Your task to perform on an android device: set an alarm Image 0: 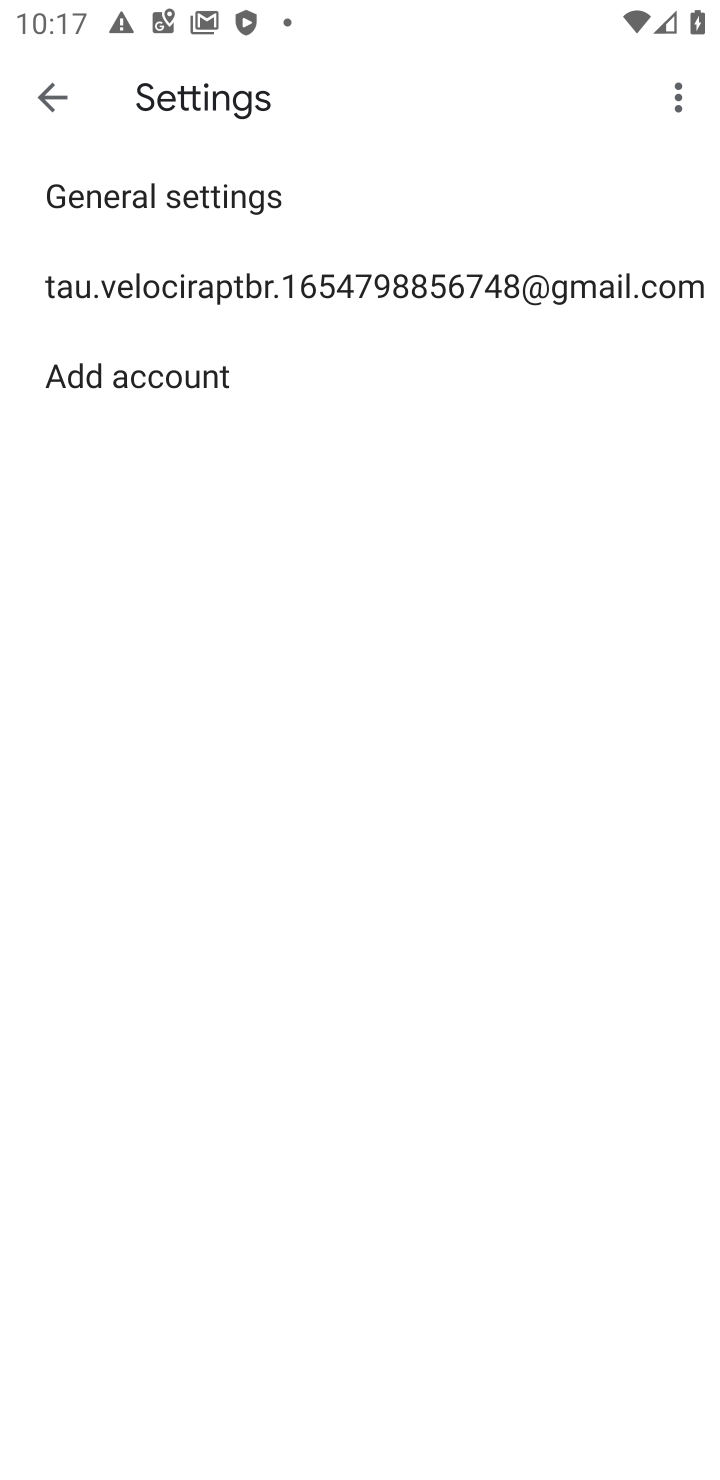
Step 0: press home button
Your task to perform on an android device: set an alarm Image 1: 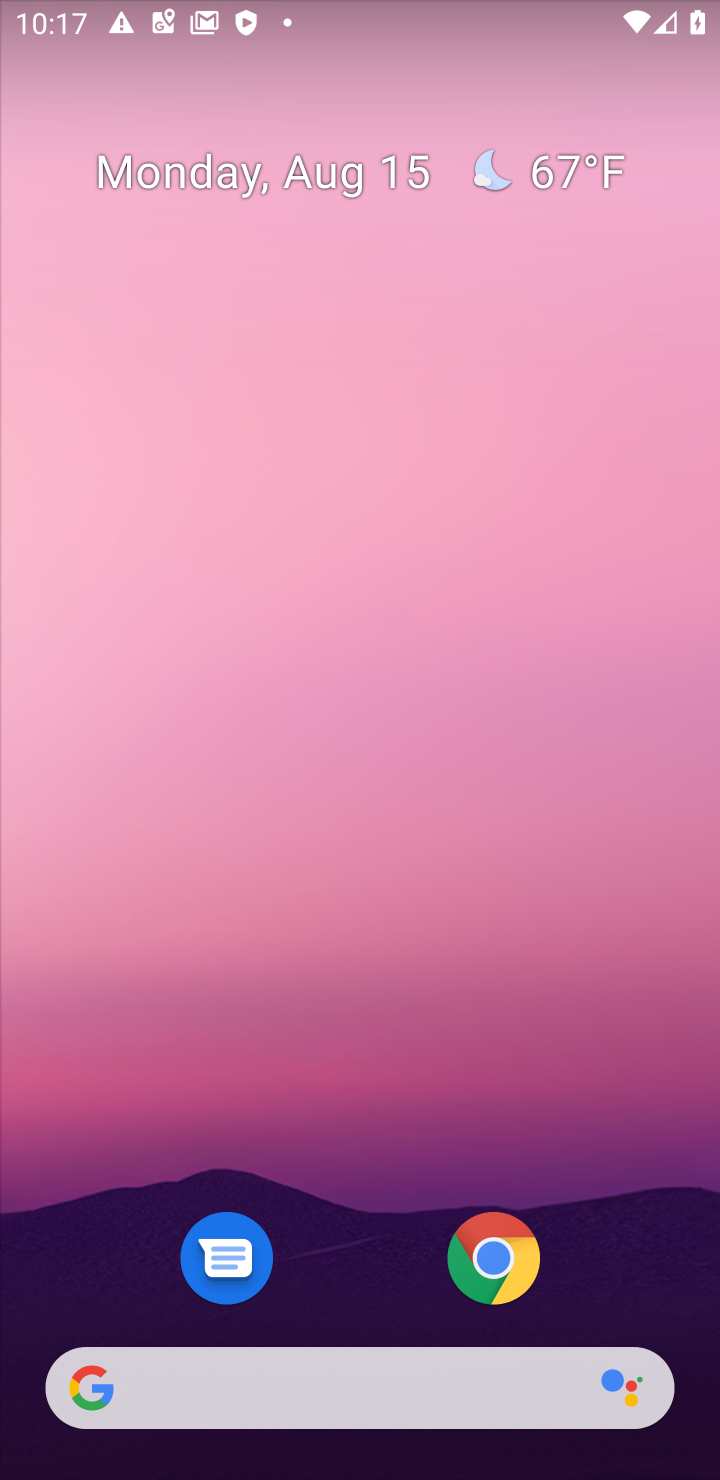
Step 1: drag from (394, 716) to (293, 4)
Your task to perform on an android device: set an alarm Image 2: 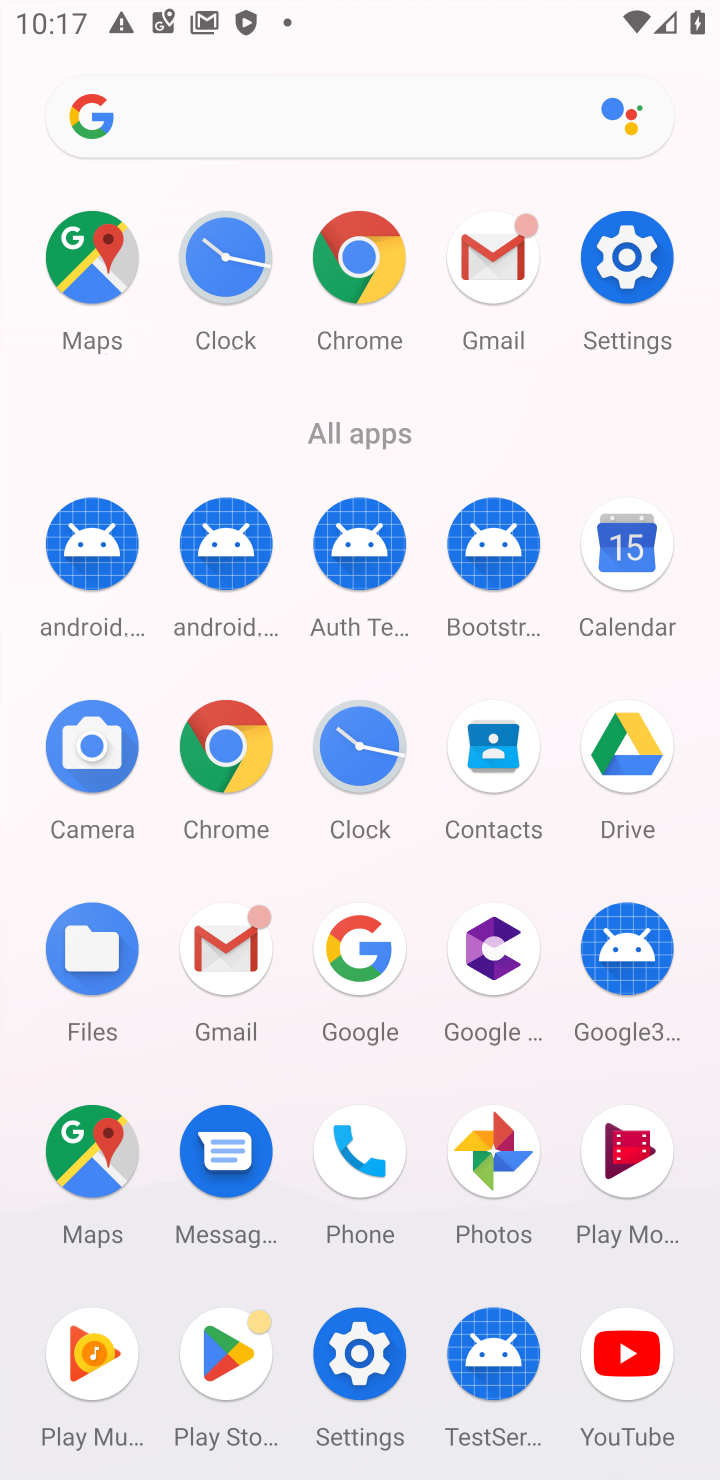
Step 2: click (370, 746)
Your task to perform on an android device: set an alarm Image 3: 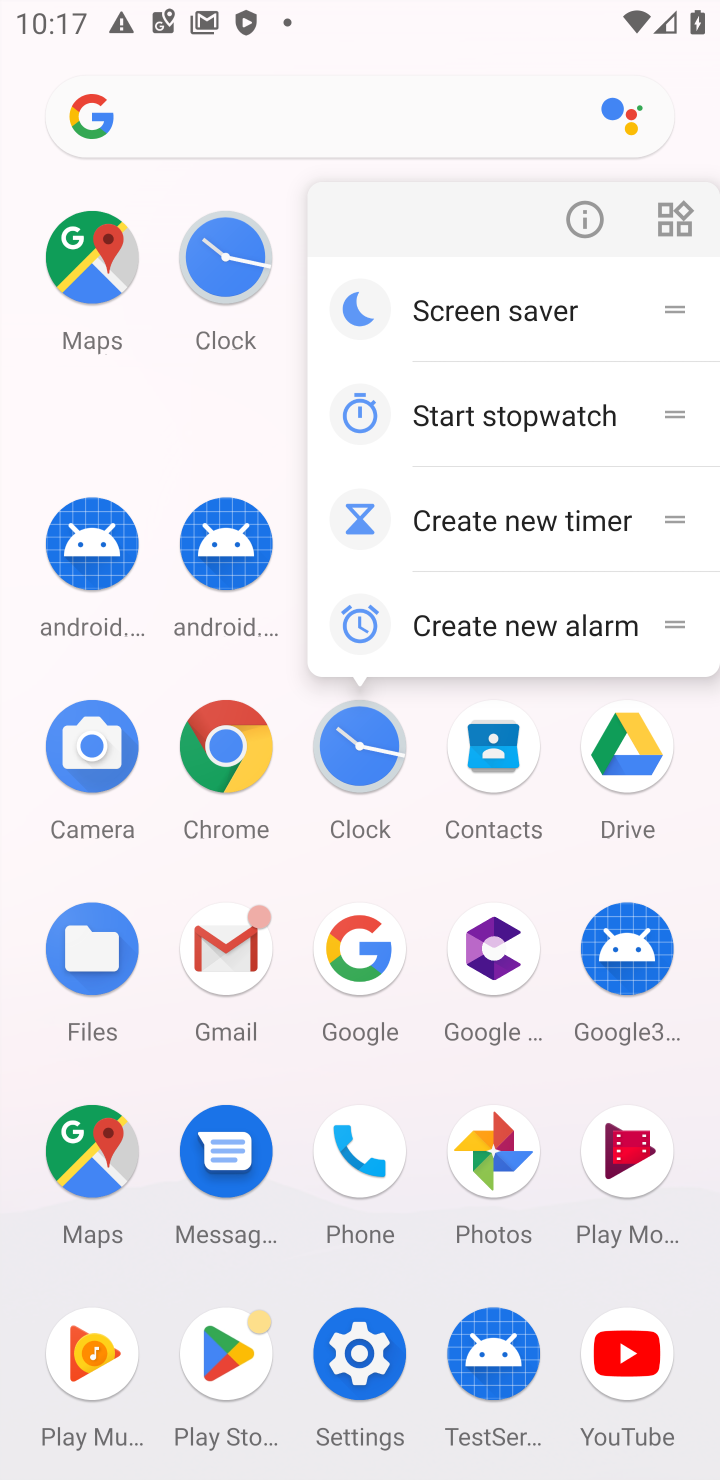
Step 3: click (360, 784)
Your task to perform on an android device: set an alarm Image 4: 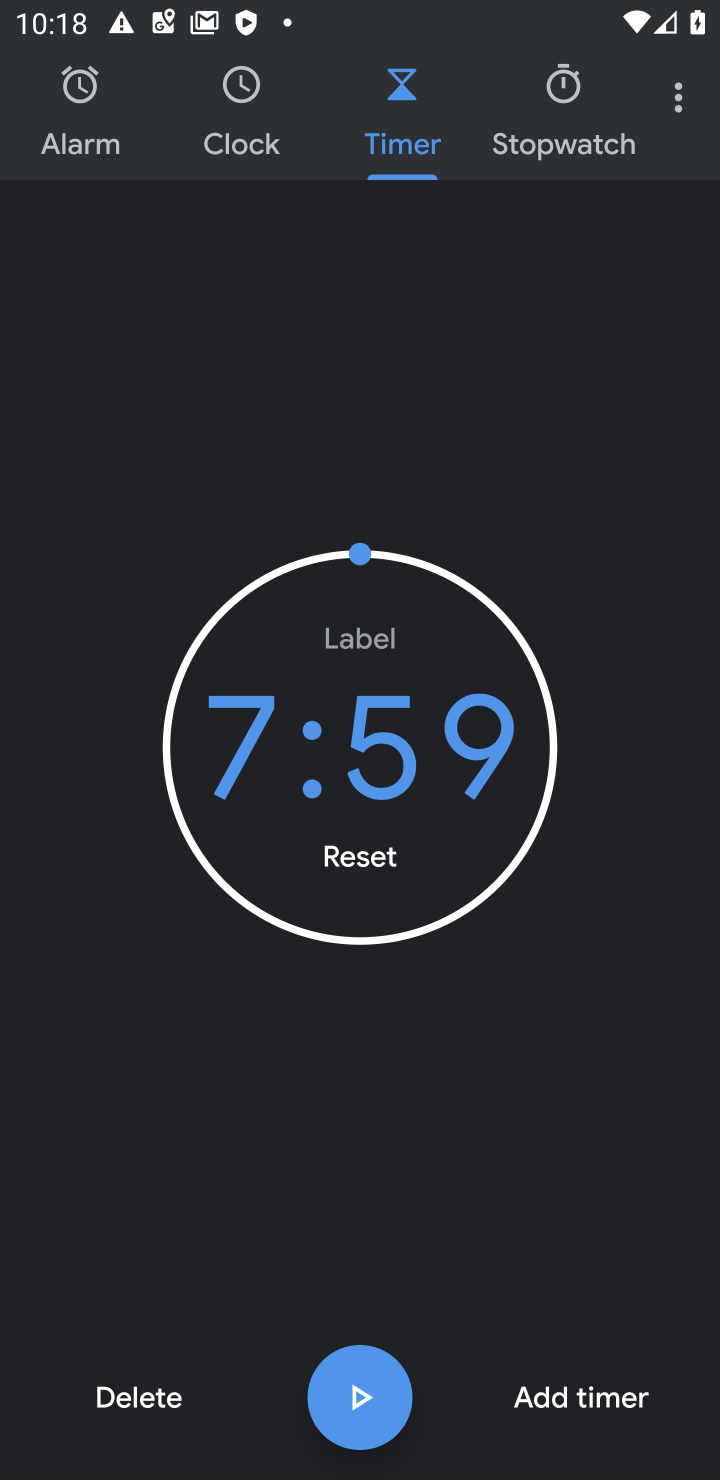
Step 4: click (147, 1389)
Your task to perform on an android device: set an alarm Image 5: 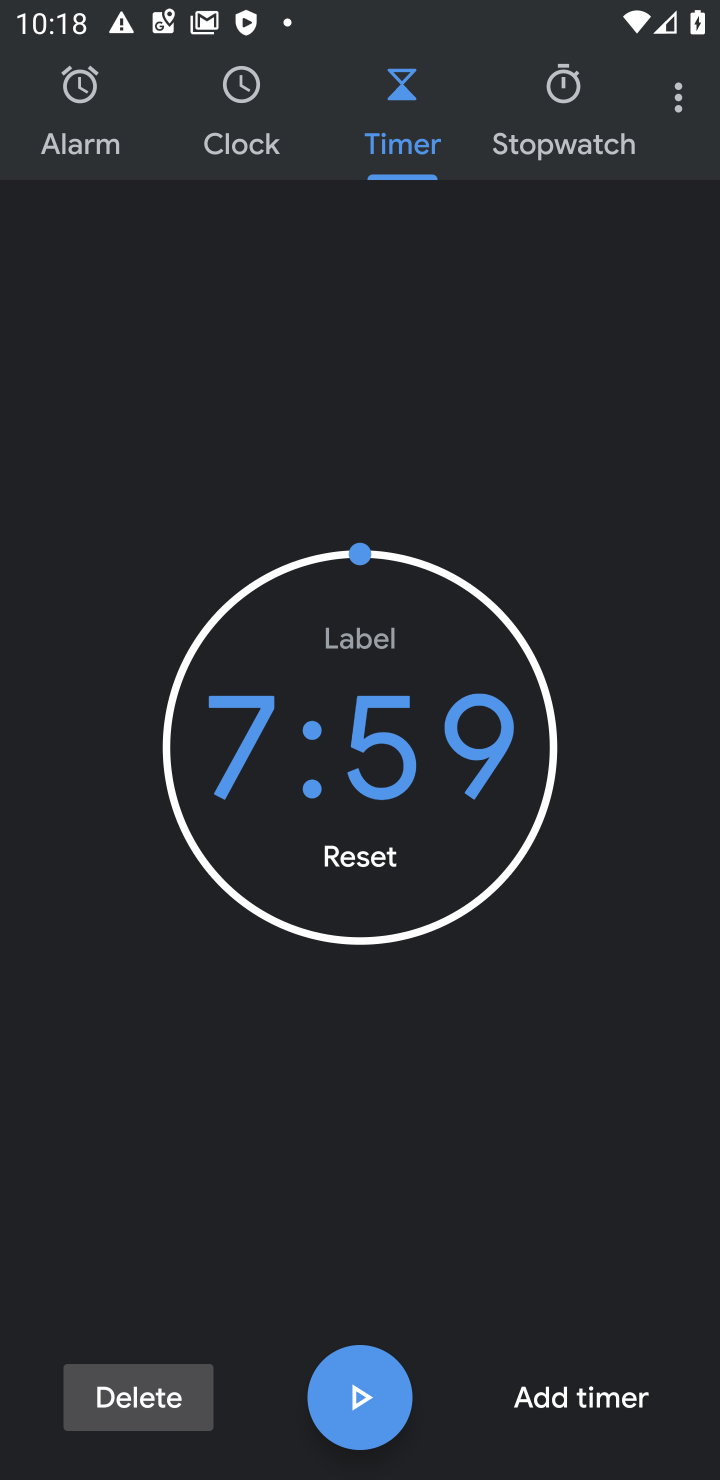
Step 5: click (100, 91)
Your task to perform on an android device: set an alarm Image 6: 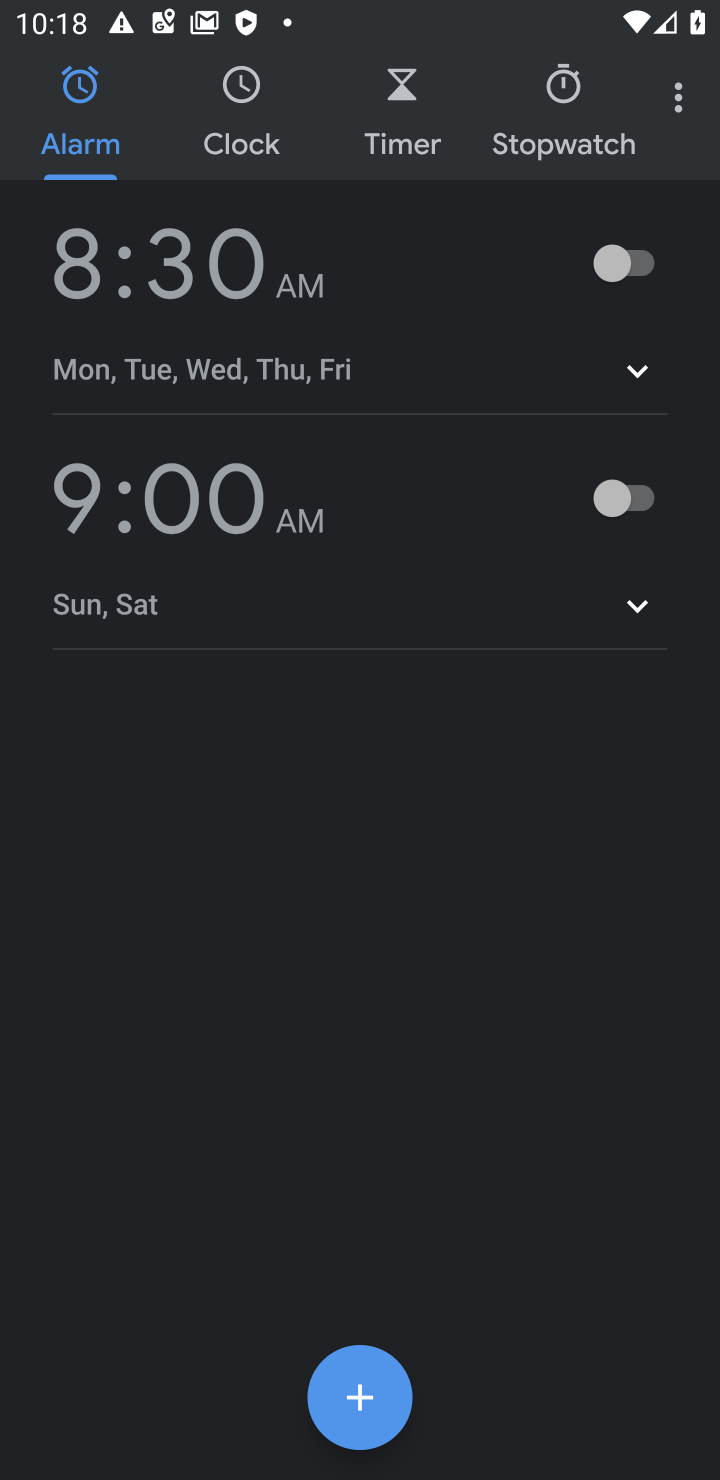
Step 6: click (232, 288)
Your task to perform on an android device: set an alarm Image 7: 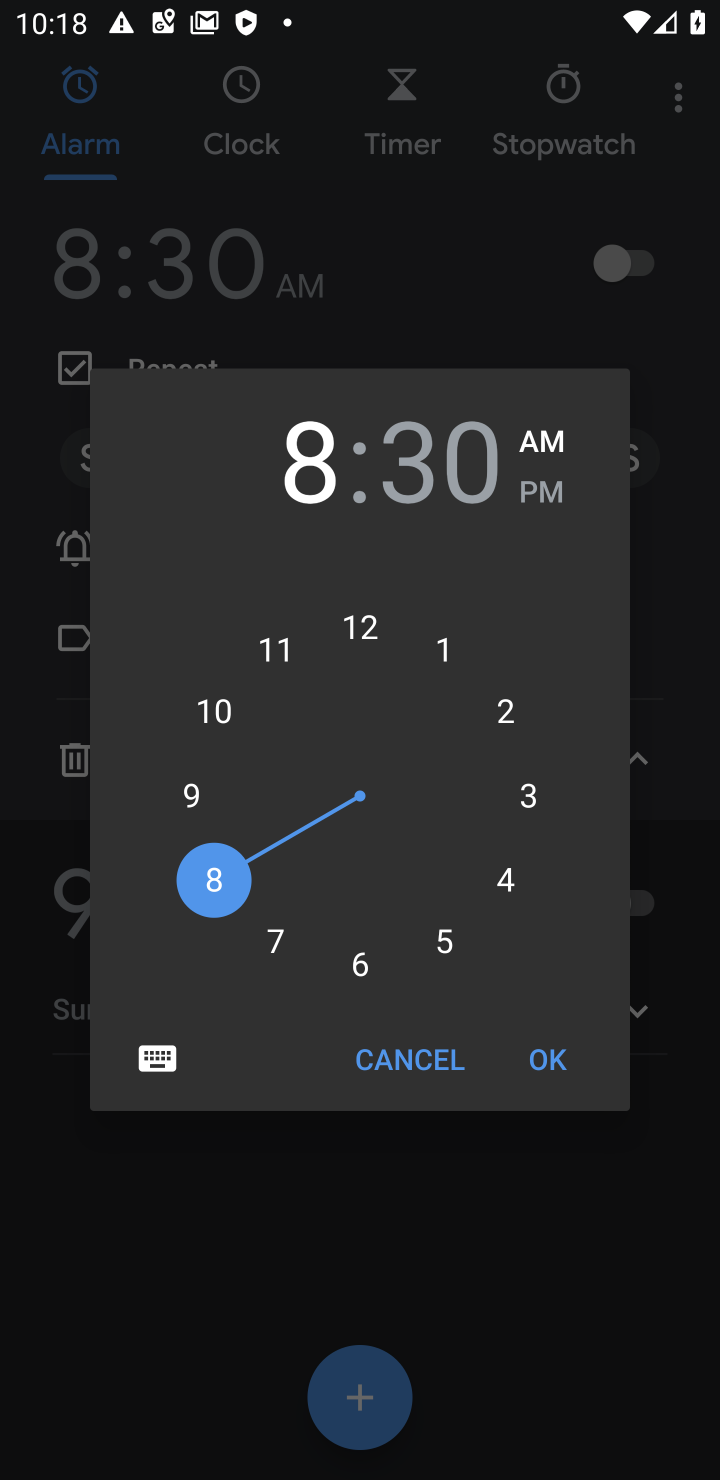
Step 7: click (365, 978)
Your task to perform on an android device: set an alarm Image 8: 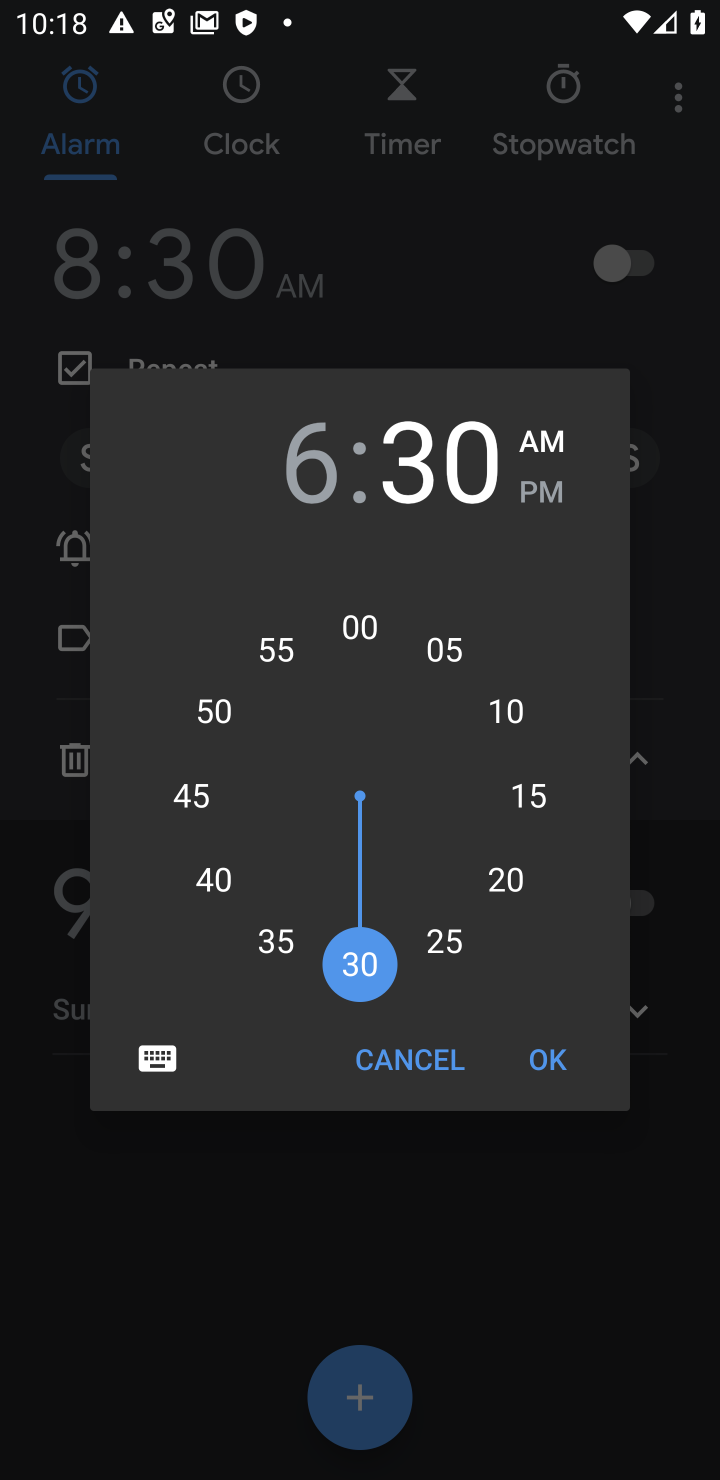
Step 8: click (523, 713)
Your task to perform on an android device: set an alarm Image 9: 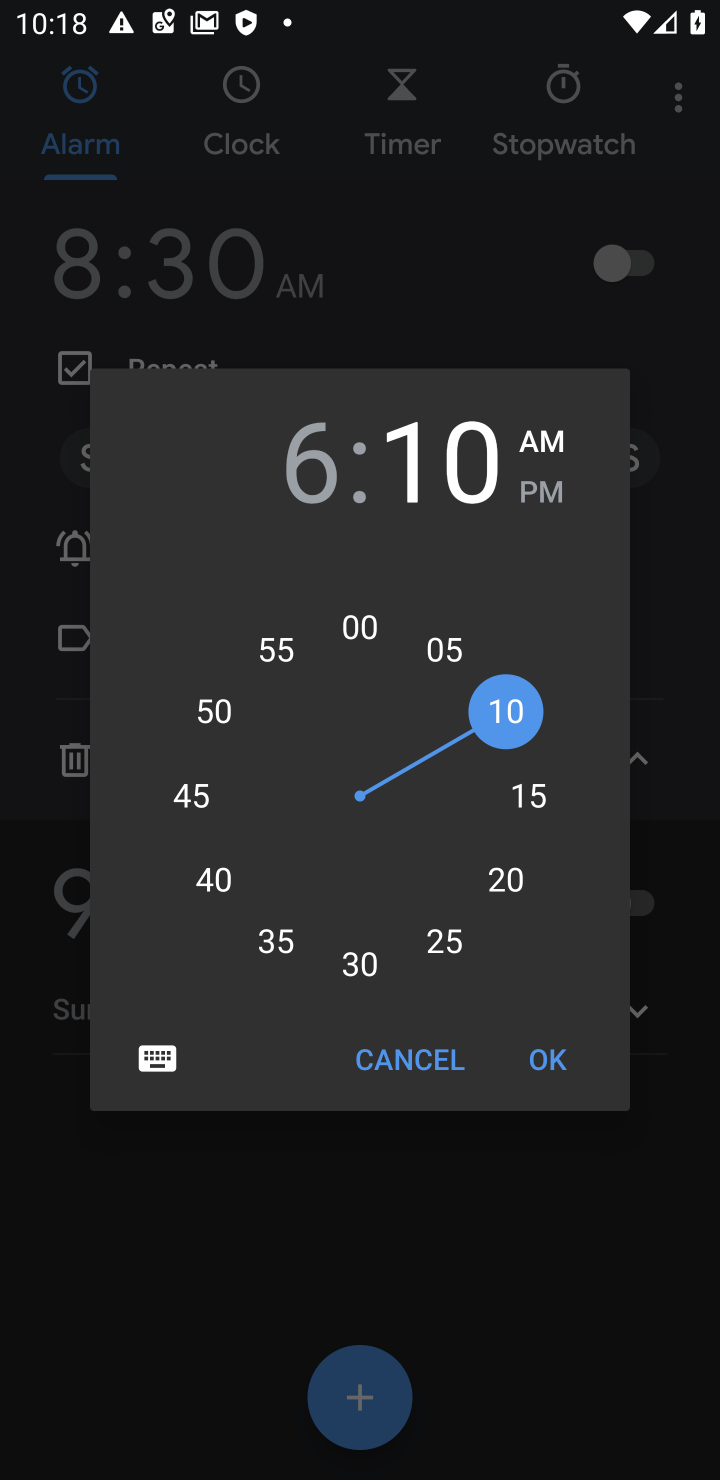
Step 9: click (559, 1062)
Your task to perform on an android device: set an alarm Image 10: 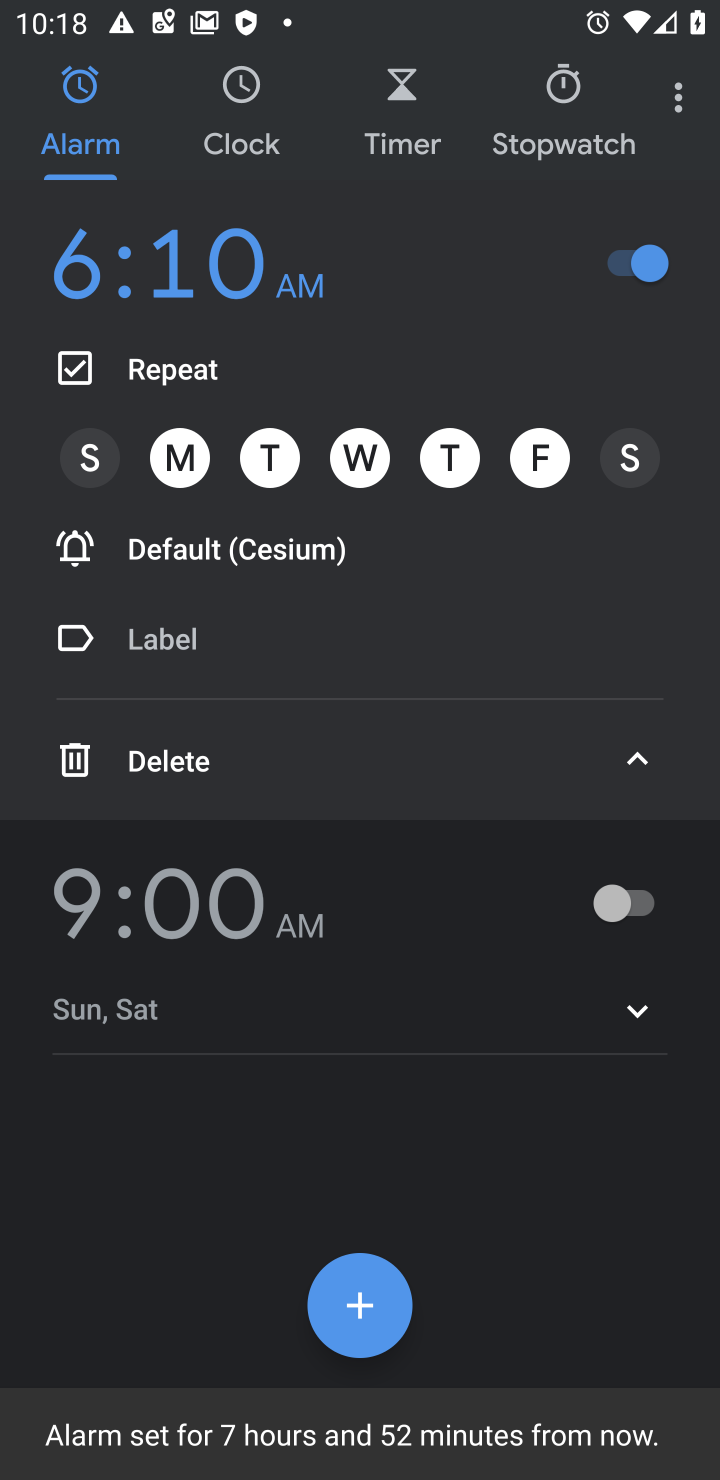
Step 10: click (275, 485)
Your task to perform on an android device: set an alarm Image 11: 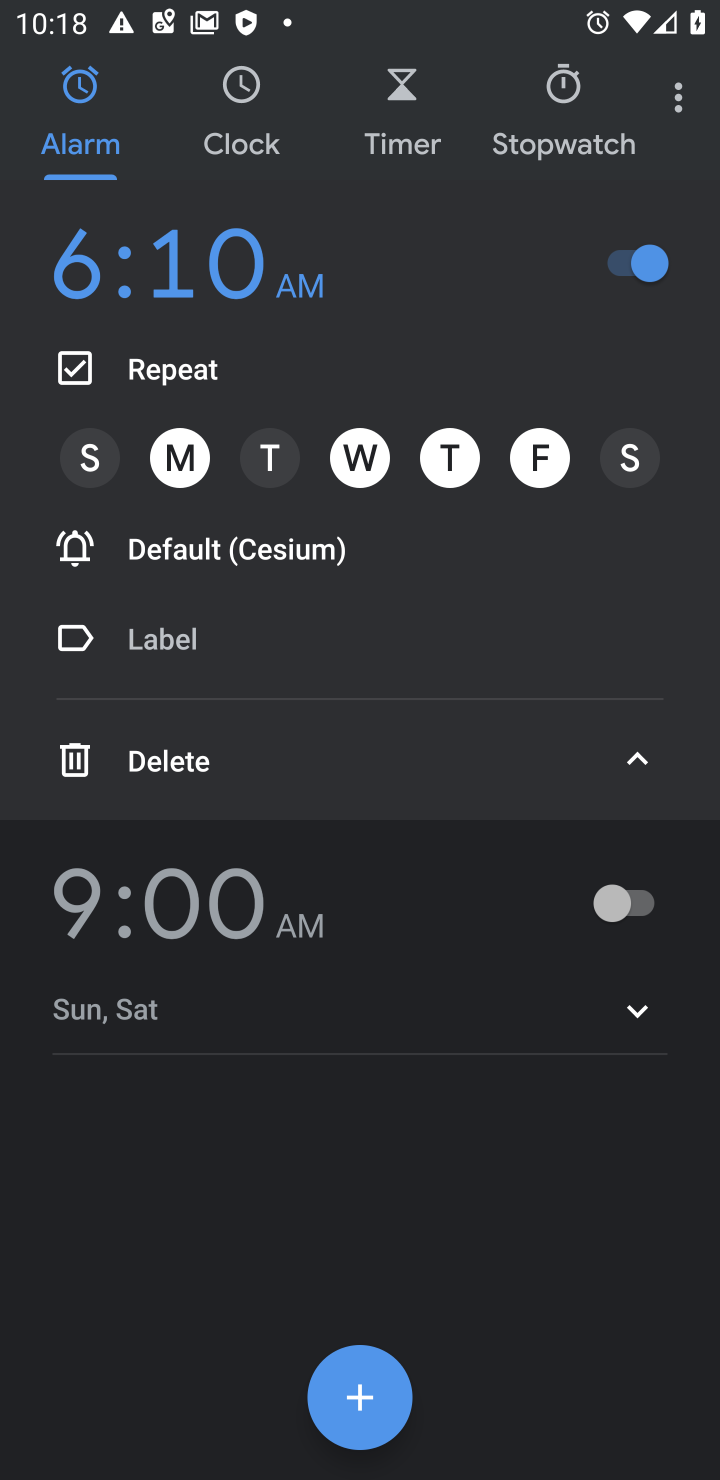
Step 11: task complete